Your task to perform on an android device: Check the weather Image 0: 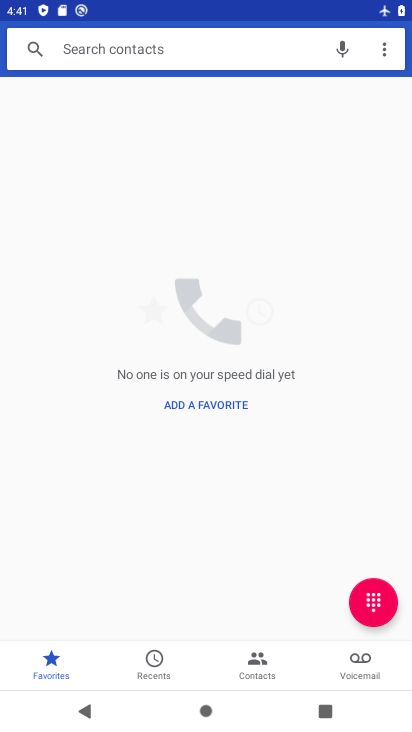
Step 0: press back button
Your task to perform on an android device: Check the weather Image 1: 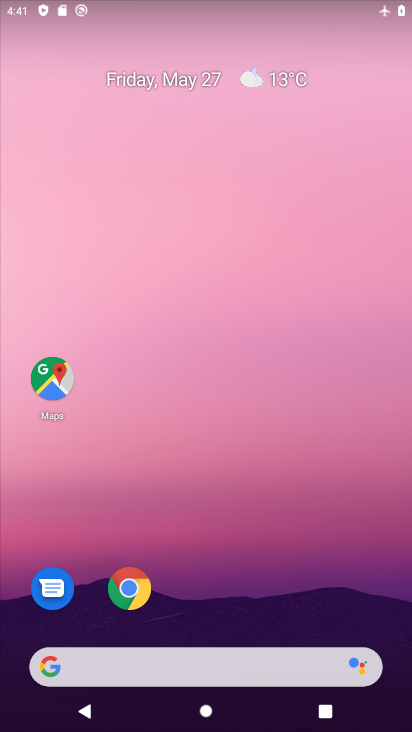
Step 1: click (261, 70)
Your task to perform on an android device: Check the weather Image 2: 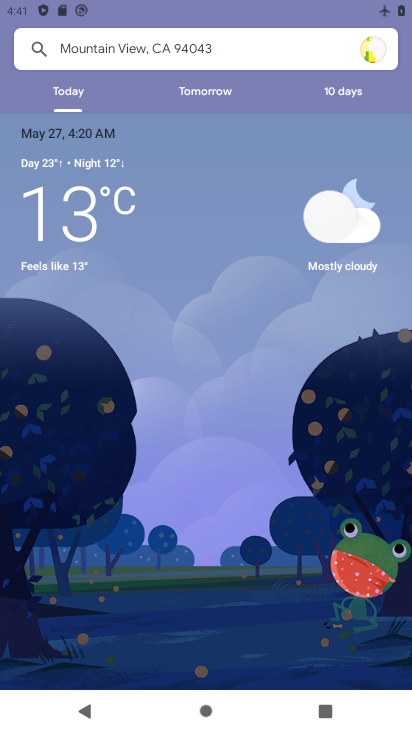
Step 2: task complete